Your task to perform on an android device: toggle pop-ups in chrome Image 0: 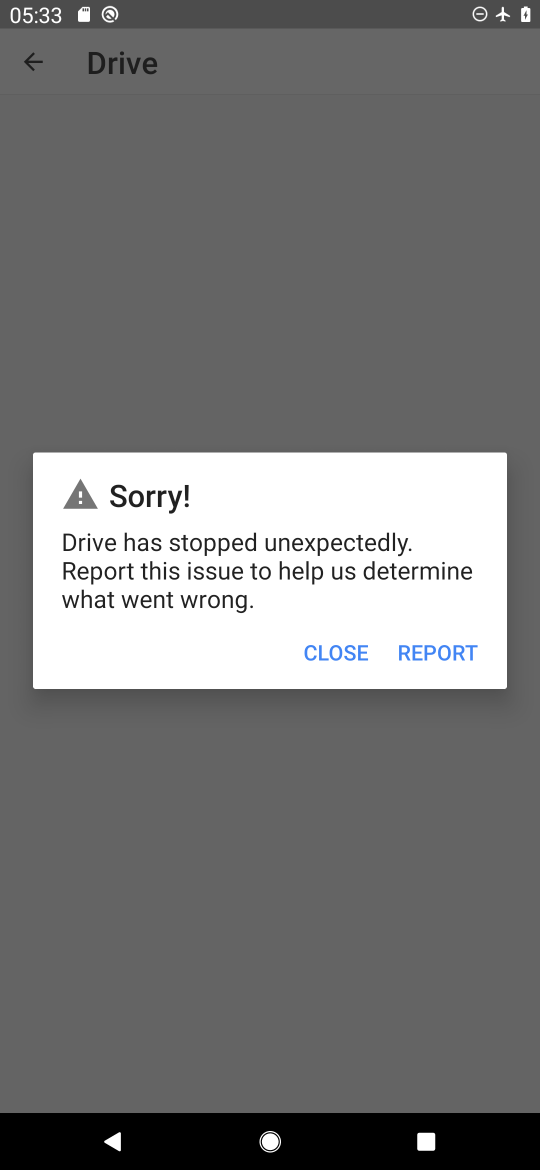
Step 0: press home button
Your task to perform on an android device: toggle pop-ups in chrome Image 1: 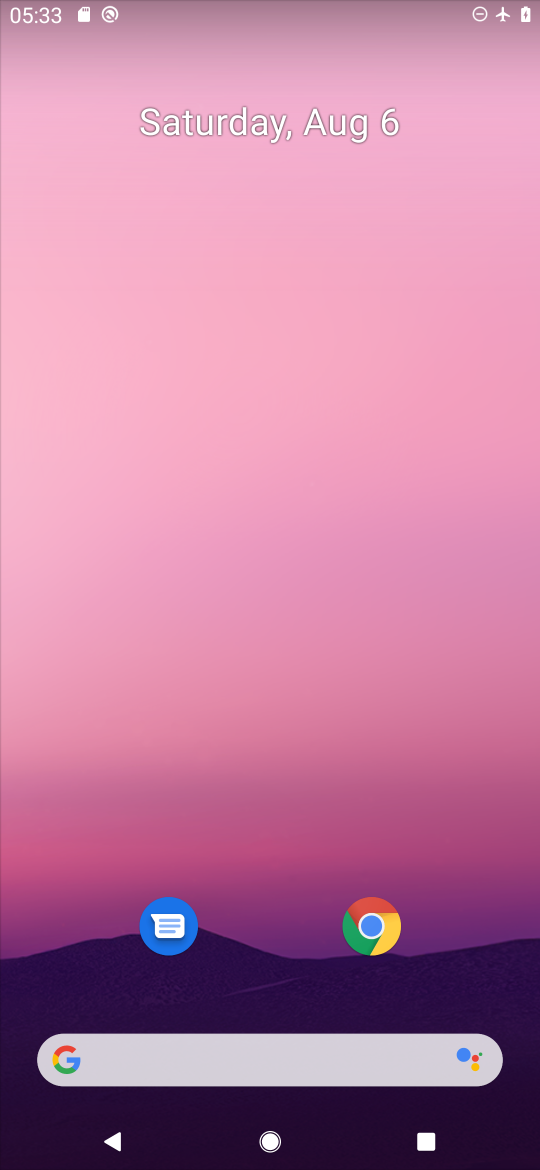
Step 1: click (381, 940)
Your task to perform on an android device: toggle pop-ups in chrome Image 2: 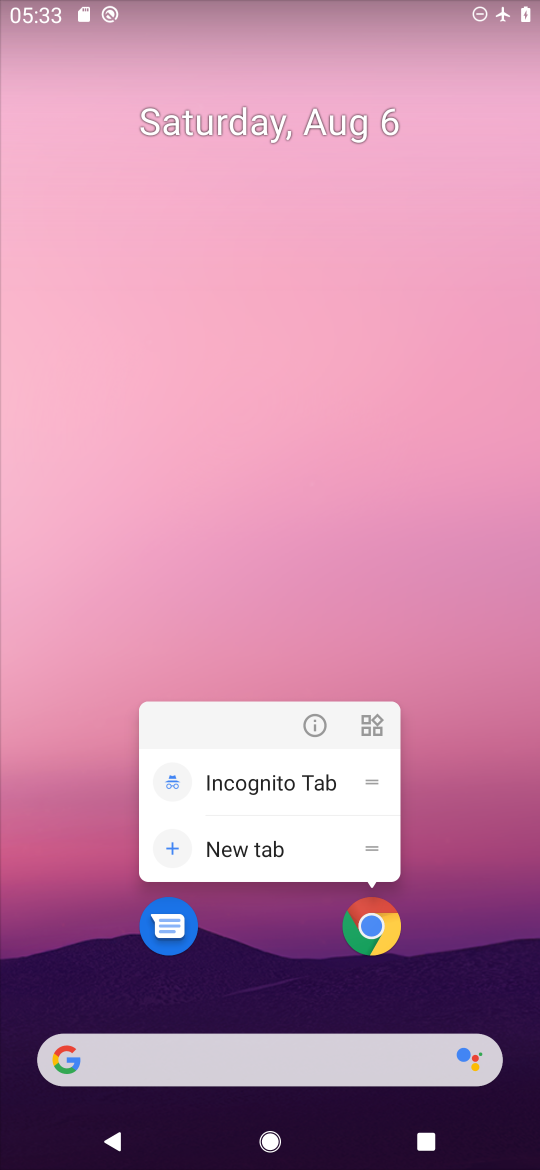
Step 2: click (371, 947)
Your task to perform on an android device: toggle pop-ups in chrome Image 3: 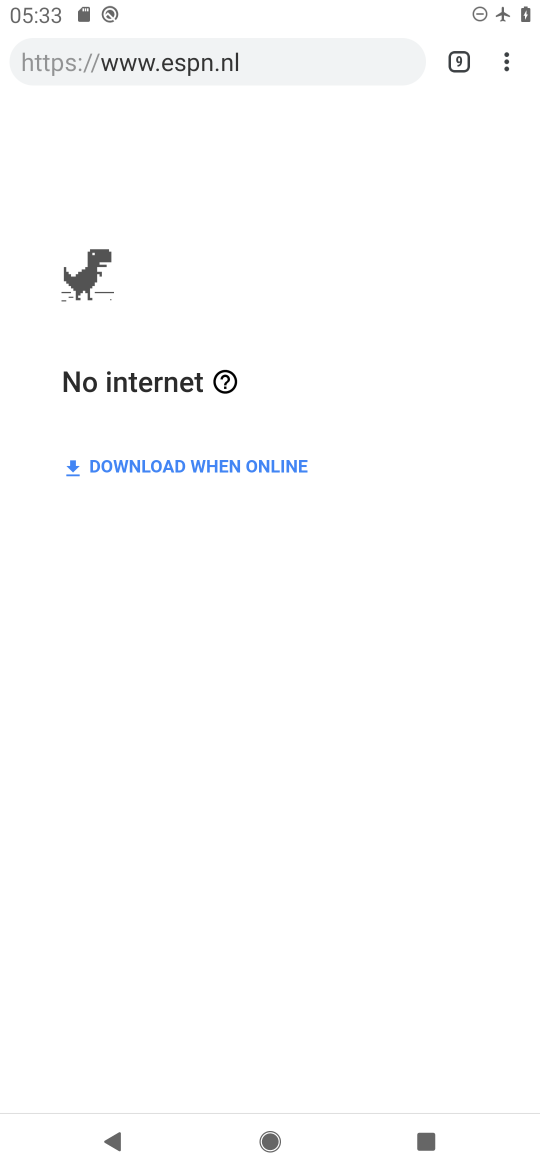
Step 3: click (499, 66)
Your task to perform on an android device: toggle pop-ups in chrome Image 4: 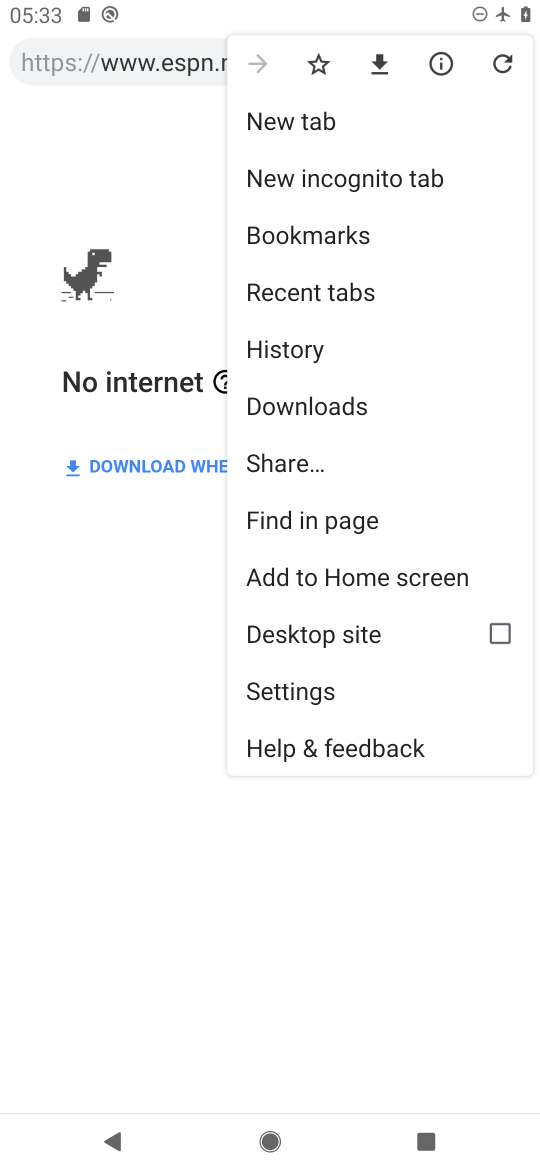
Step 4: click (327, 669)
Your task to perform on an android device: toggle pop-ups in chrome Image 5: 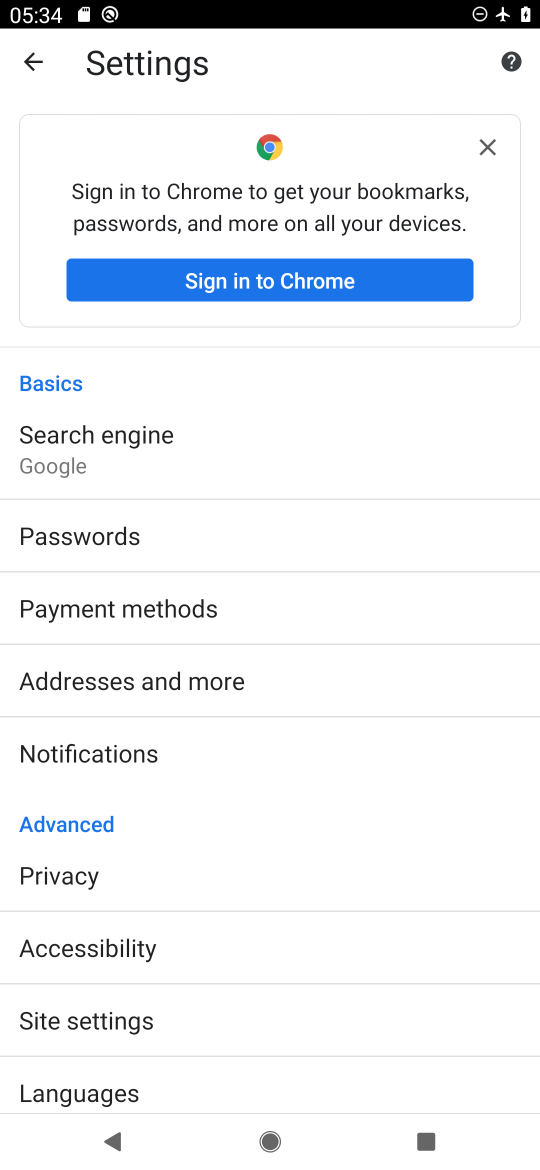
Step 5: click (183, 1010)
Your task to perform on an android device: toggle pop-ups in chrome Image 6: 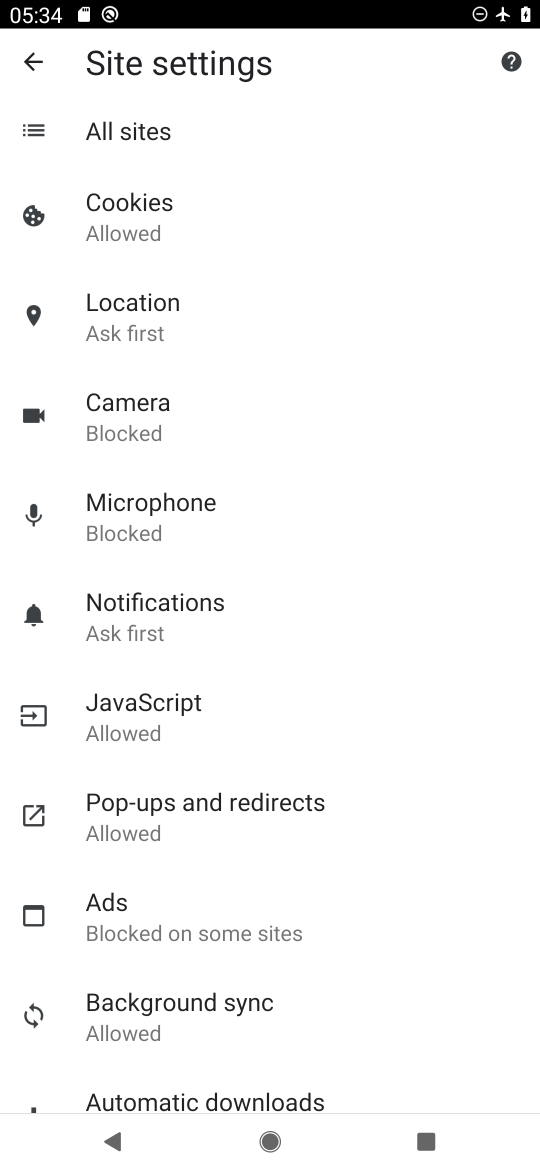
Step 6: click (222, 798)
Your task to perform on an android device: toggle pop-ups in chrome Image 7: 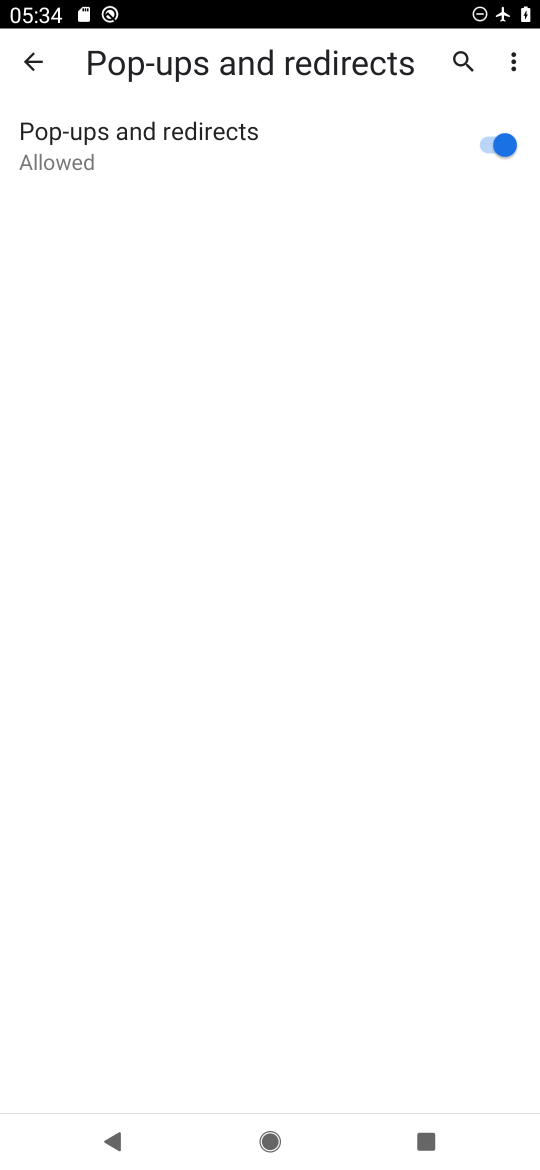
Step 7: click (491, 151)
Your task to perform on an android device: toggle pop-ups in chrome Image 8: 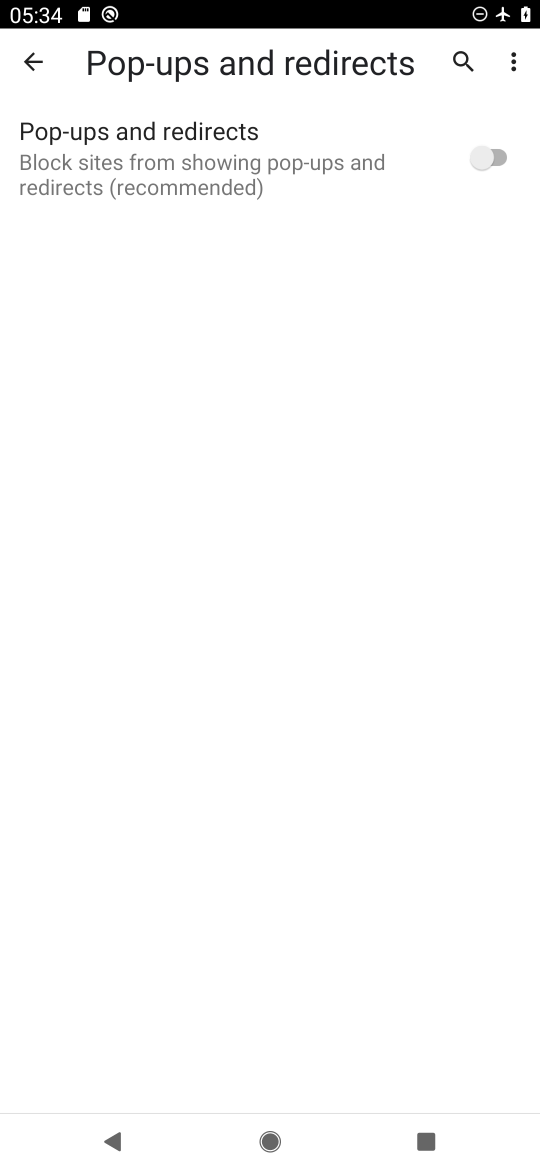
Step 8: task complete